Your task to perform on an android device: choose inbox layout in the gmail app Image 0: 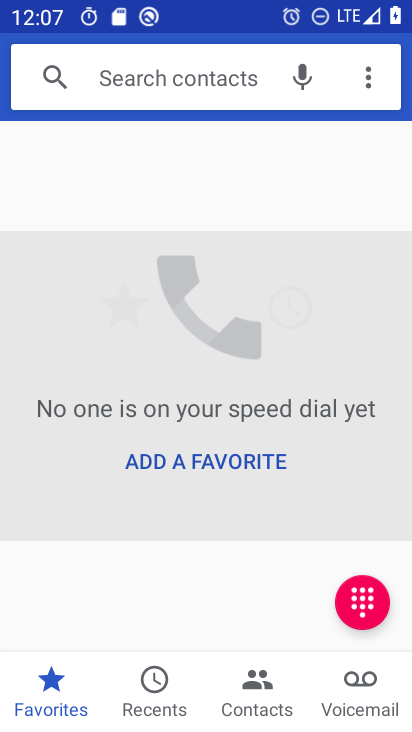
Step 0: press home button
Your task to perform on an android device: choose inbox layout in the gmail app Image 1: 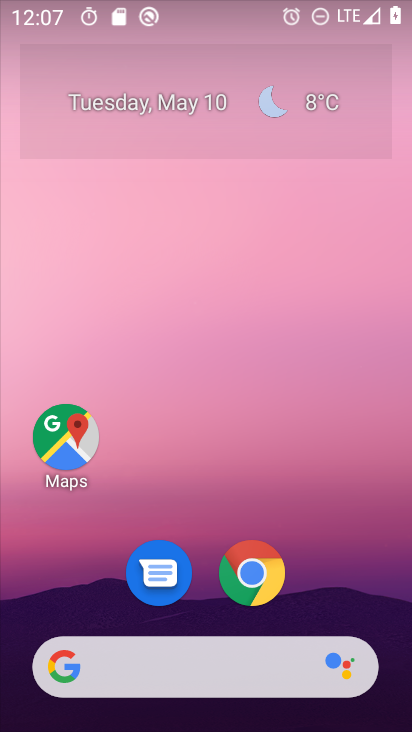
Step 1: drag from (348, 546) to (286, 148)
Your task to perform on an android device: choose inbox layout in the gmail app Image 2: 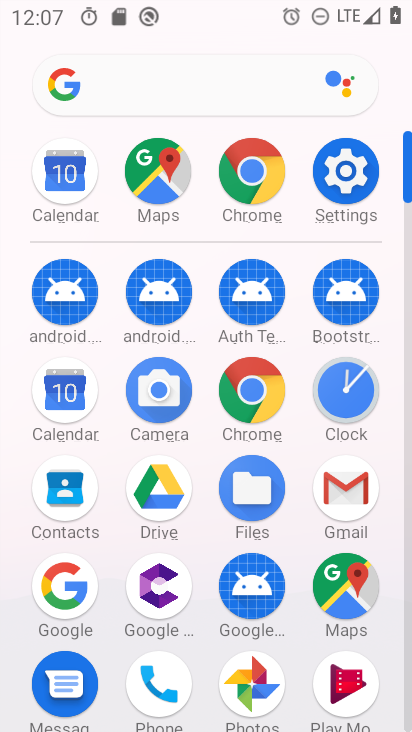
Step 2: click (350, 504)
Your task to perform on an android device: choose inbox layout in the gmail app Image 3: 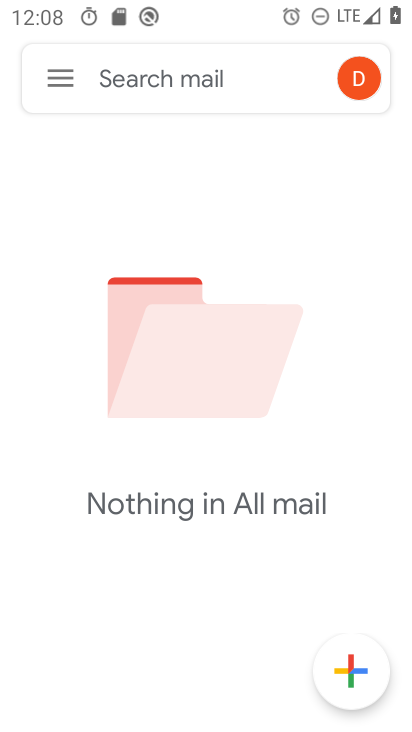
Step 3: click (68, 73)
Your task to perform on an android device: choose inbox layout in the gmail app Image 4: 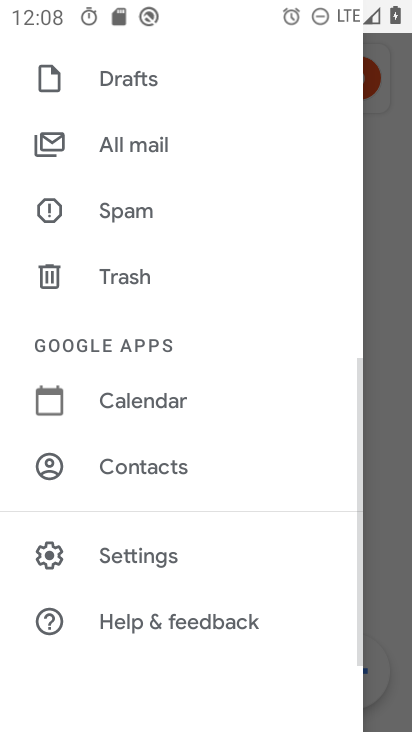
Step 4: click (154, 563)
Your task to perform on an android device: choose inbox layout in the gmail app Image 5: 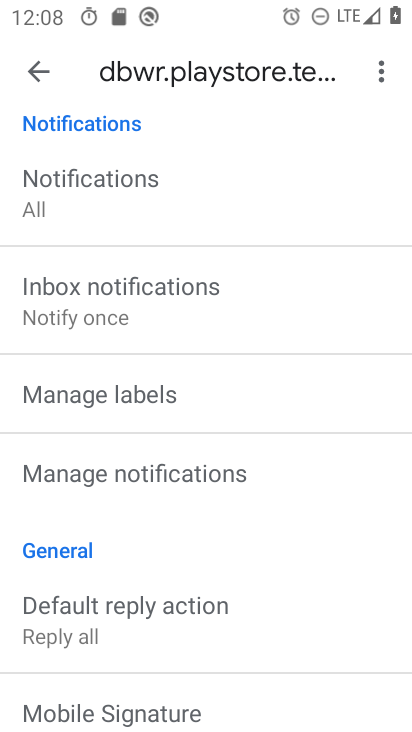
Step 5: drag from (164, 238) to (201, 582)
Your task to perform on an android device: choose inbox layout in the gmail app Image 6: 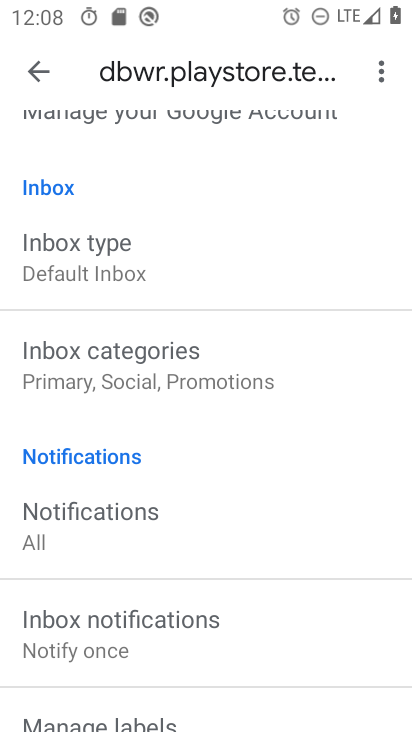
Step 6: click (117, 248)
Your task to perform on an android device: choose inbox layout in the gmail app Image 7: 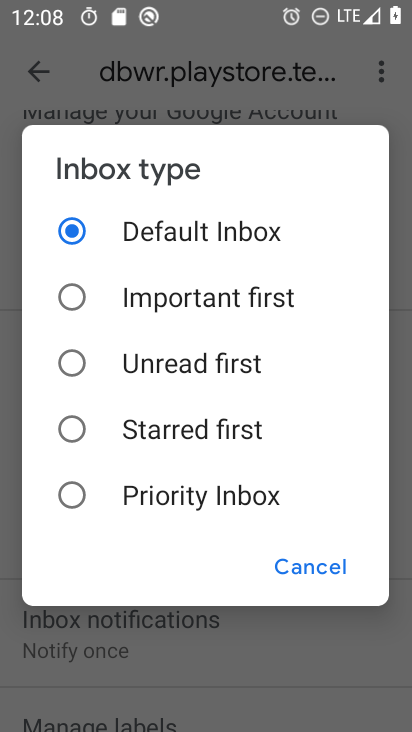
Step 7: task complete